Your task to perform on an android device: turn off location Image 0: 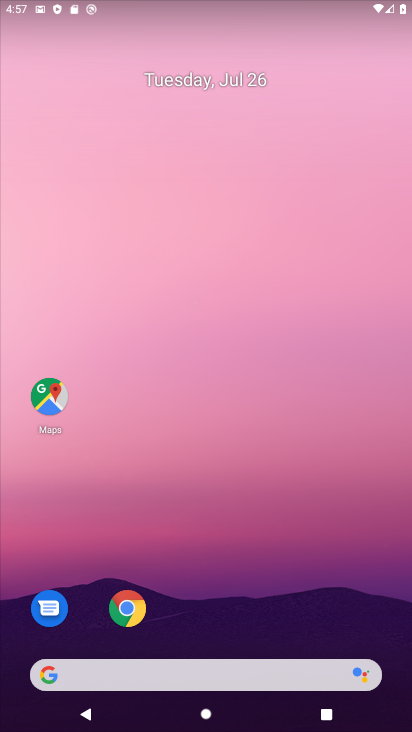
Step 0: press home button
Your task to perform on an android device: turn off location Image 1: 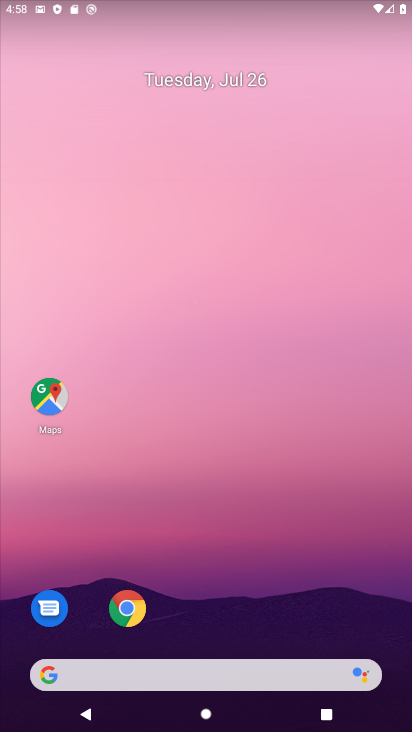
Step 1: drag from (221, 644) to (217, 184)
Your task to perform on an android device: turn off location Image 2: 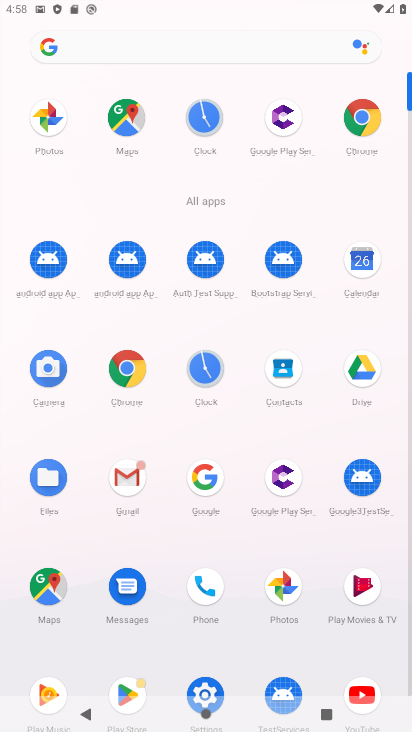
Step 2: click (203, 693)
Your task to perform on an android device: turn off location Image 3: 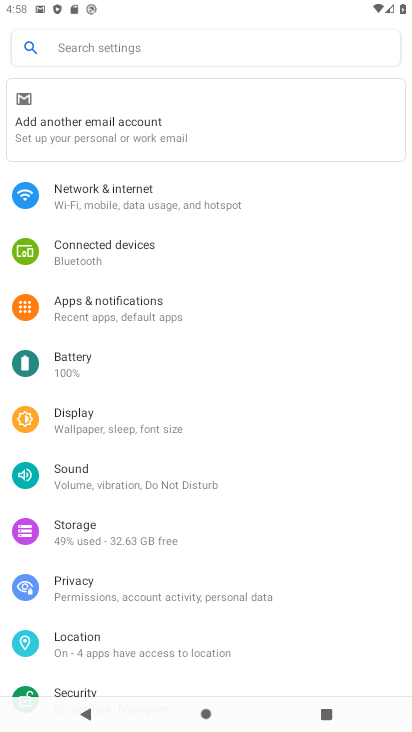
Step 3: click (83, 647)
Your task to perform on an android device: turn off location Image 4: 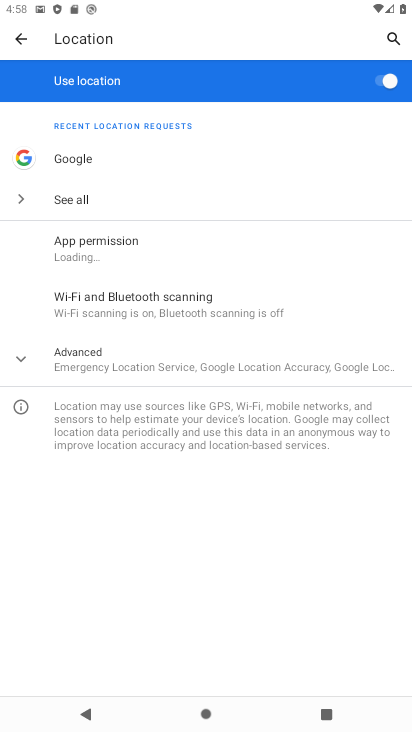
Step 4: click (394, 80)
Your task to perform on an android device: turn off location Image 5: 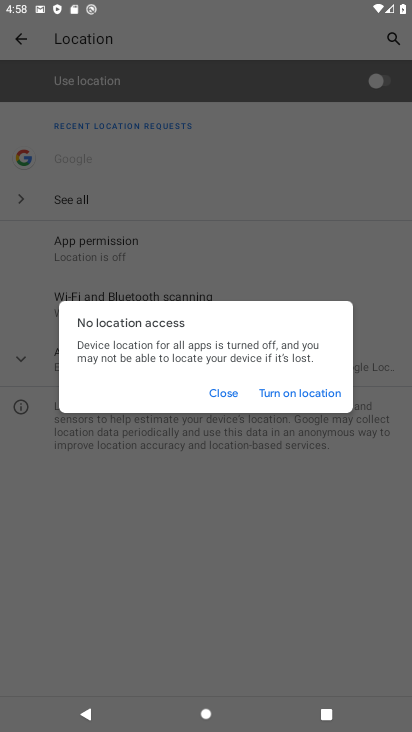
Step 5: task complete